Your task to perform on an android device: open wifi settings Image 0: 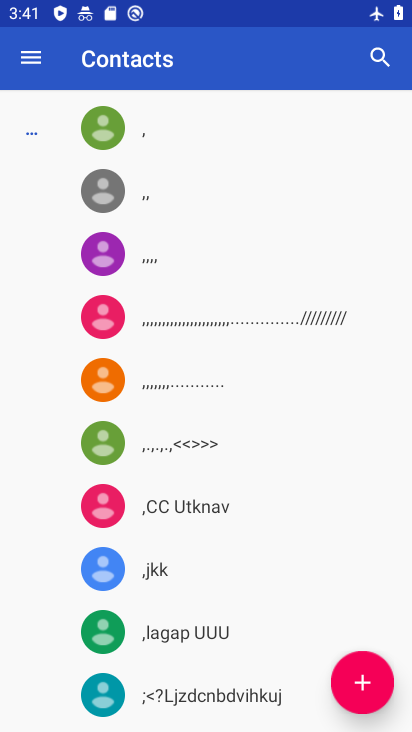
Step 0: press home button
Your task to perform on an android device: open wifi settings Image 1: 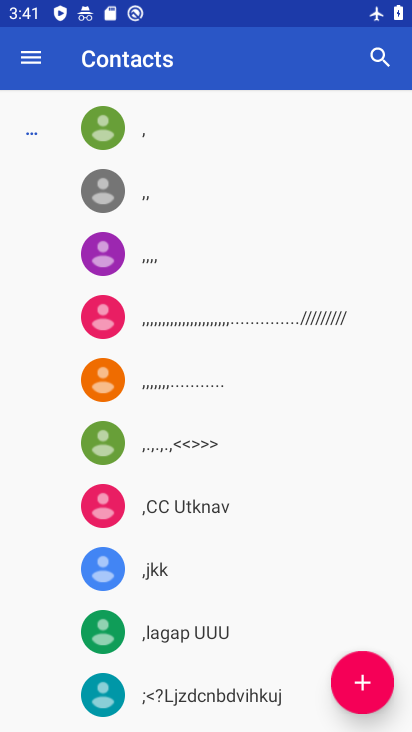
Step 1: press home button
Your task to perform on an android device: open wifi settings Image 2: 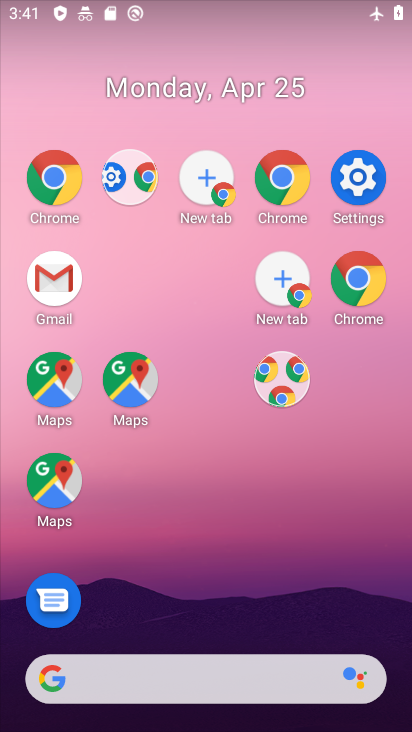
Step 2: drag from (231, 492) to (212, 18)
Your task to perform on an android device: open wifi settings Image 3: 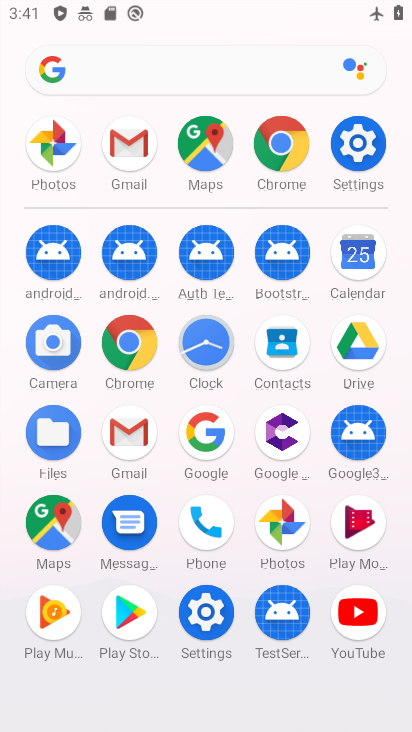
Step 3: click (355, 149)
Your task to perform on an android device: open wifi settings Image 4: 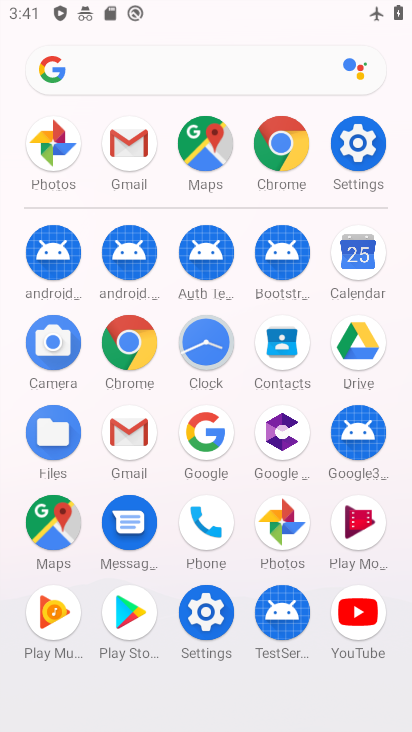
Step 4: click (356, 149)
Your task to perform on an android device: open wifi settings Image 5: 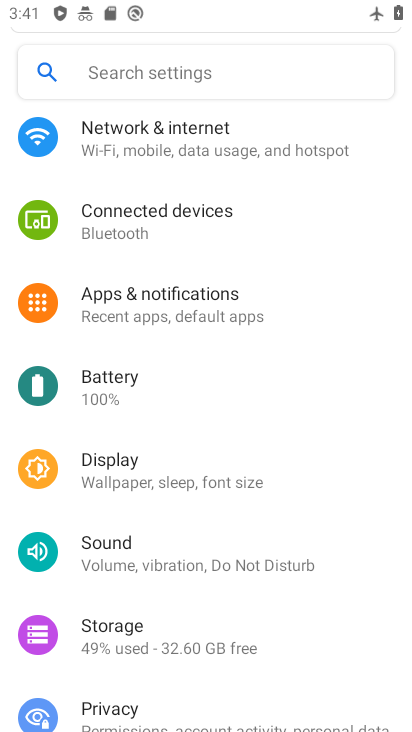
Step 5: click (359, 149)
Your task to perform on an android device: open wifi settings Image 6: 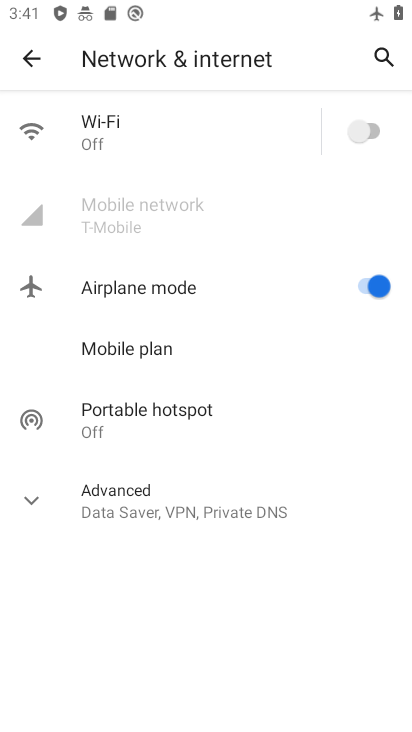
Step 6: click (27, 48)
Your task to perform on an android device: open wifi settings Image 7: 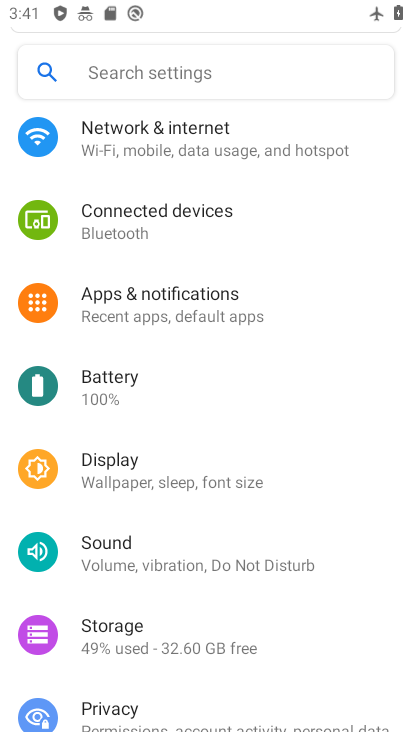
Step 7: click (168, 295)
Your task to perform on an android device: open wifi settings Image 8: 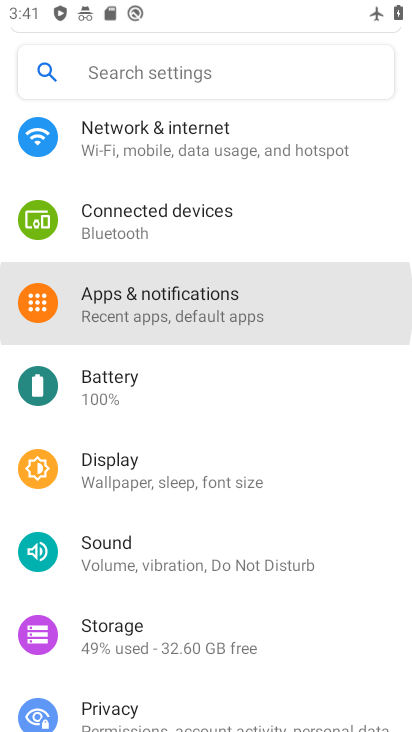
Step 8: click (168, 295)
Your task to perform on an android device: open wifi settings Image 9: 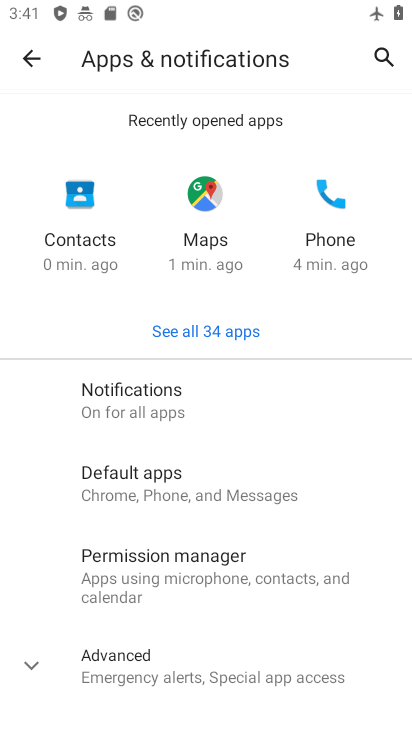
Step 9: drag from (151, 361) to (123, 160)
Your task to perform on an android device: open wifi settings Image 10: 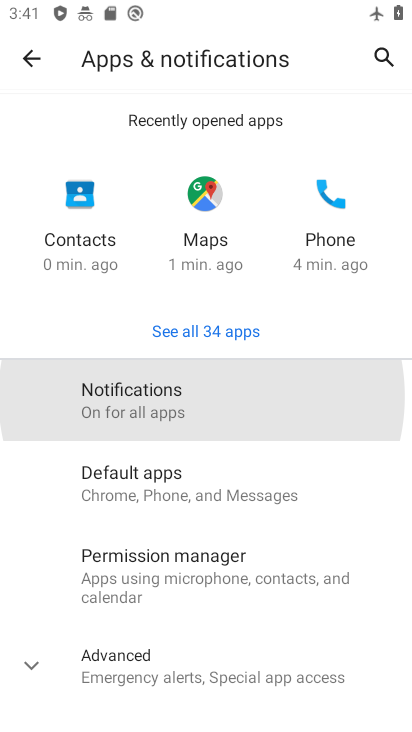
Step 10: drag from (164, 475) to (96, 183)
Your task to perform on an android device: open wifi settings Image 11: 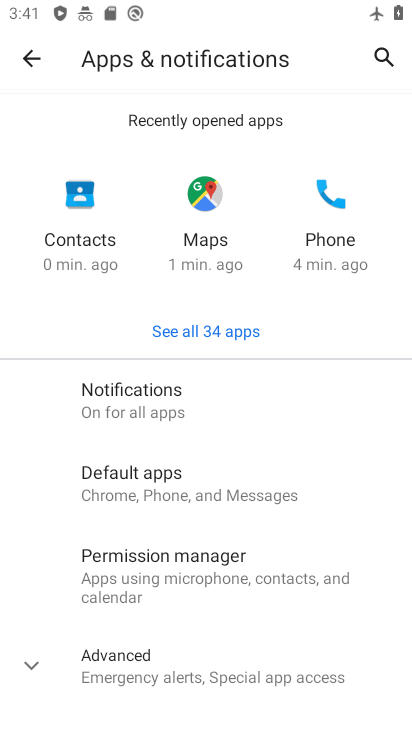
Step 11: click (28, 56)
Your task to perform on an android device: open wifi settings Image 12: 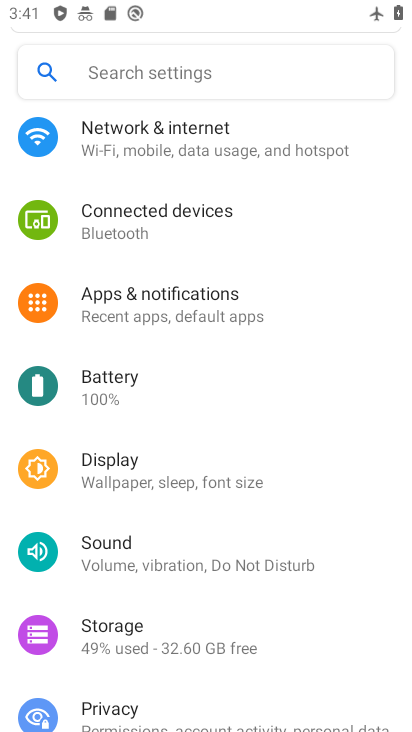
Step 12: click (178, 147)
Your task to perform on an android device: open wifi settings Image 13: 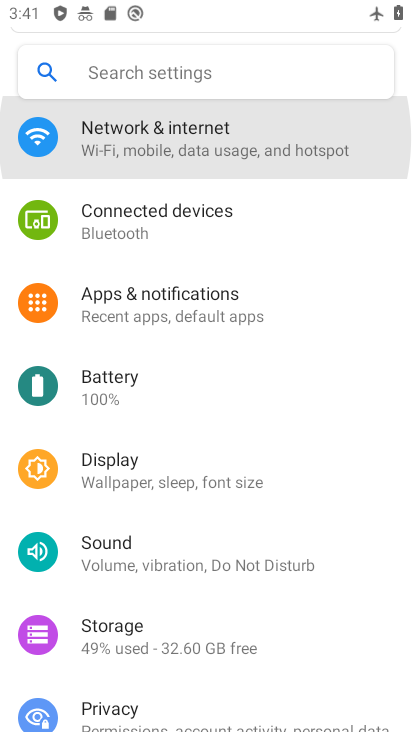
Step 13: click (178, 147)
Your task to perform on an android device: open wifi settings Image 14: 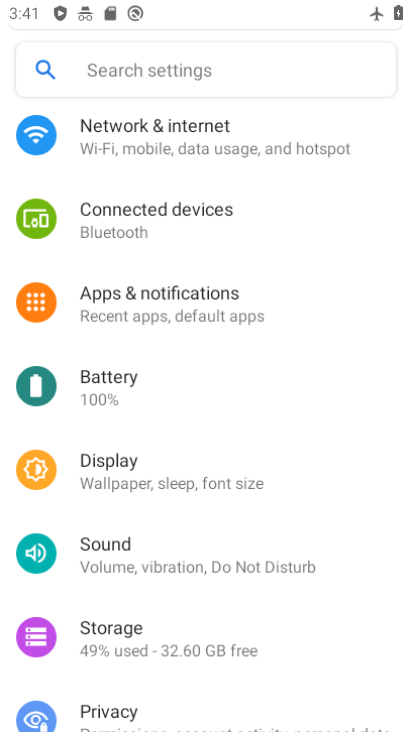
Step 14: click (178, 146)
Your task to perform on an android device: open wifi settings Image 15: 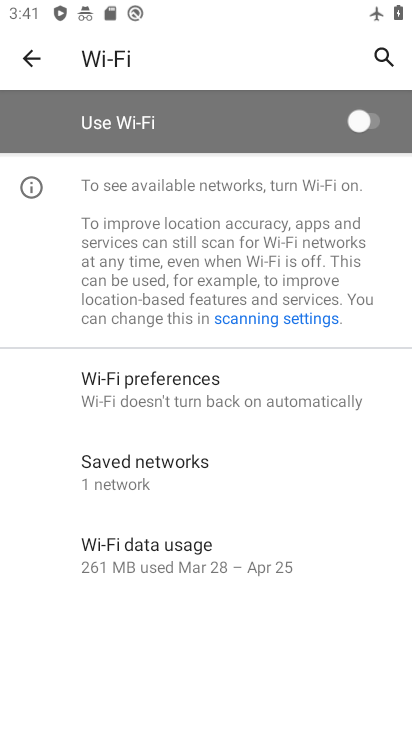
Step 15: task complete